Your task to perform on an android device: set an alarm Image 0: 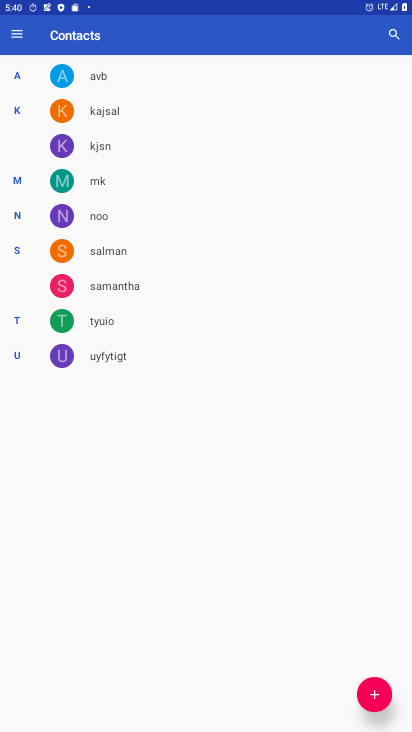
Step 0: press home button
Your task to perform on an android device: set an alarm Image 1: 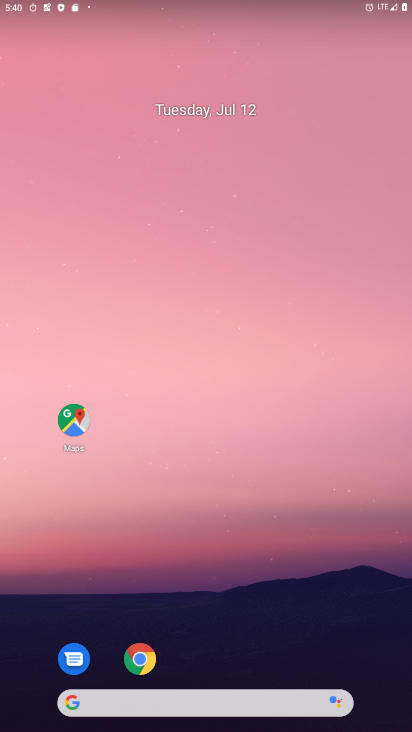
Step 1: drag from (228, 577) to (263, 186)
Your task to perform on an android device: set an alarm Image 2: 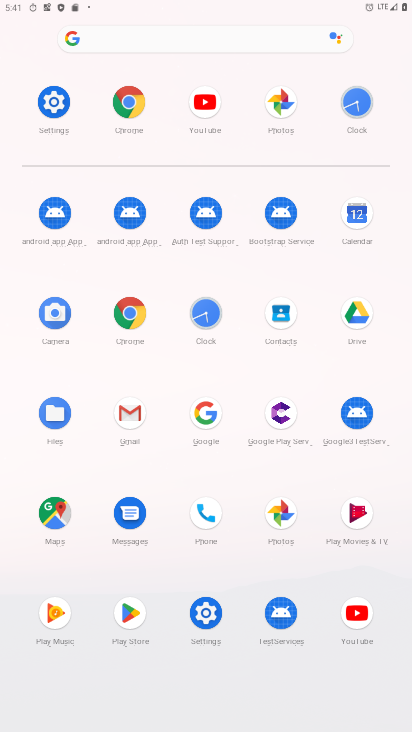
Step 2: click (214, 307)
Your task to perform on an android device: set an alarm Image 3: 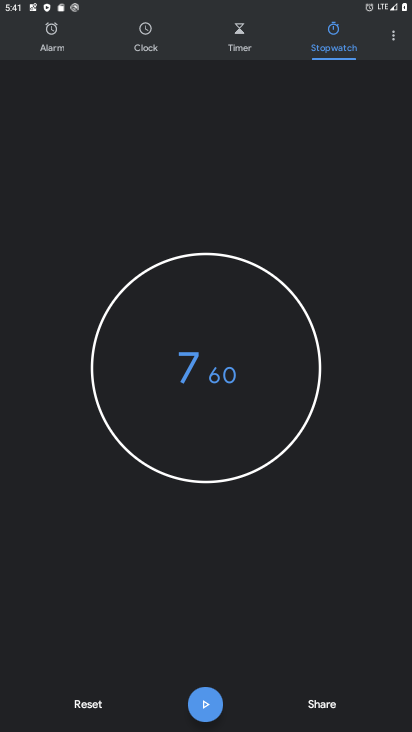
Step 3: click (46, 46)
Your task to perform on an android device: set an alarm Image 4: 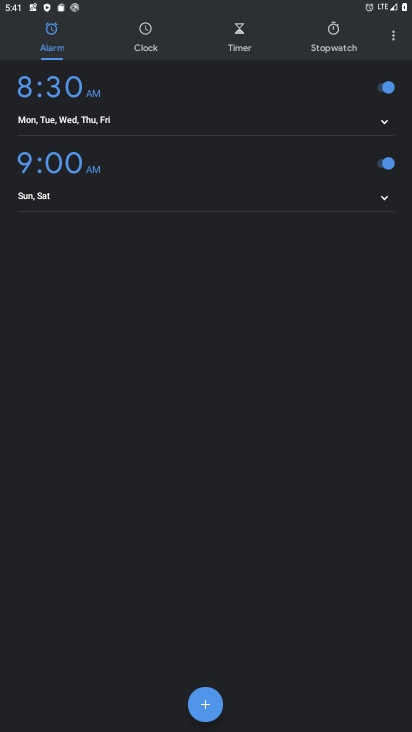
Step 4: click (207, 691)
Your task to perform on an android device: set an alarm Image 5: 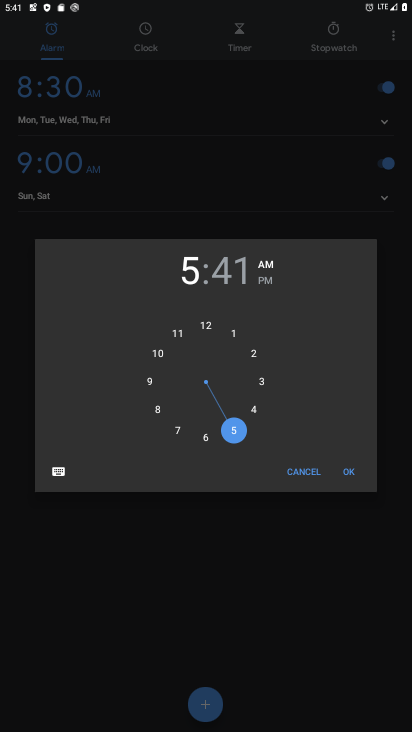
Step 5: click (254, 384)
Your task to perform on an android device: set an alarm Image 6: 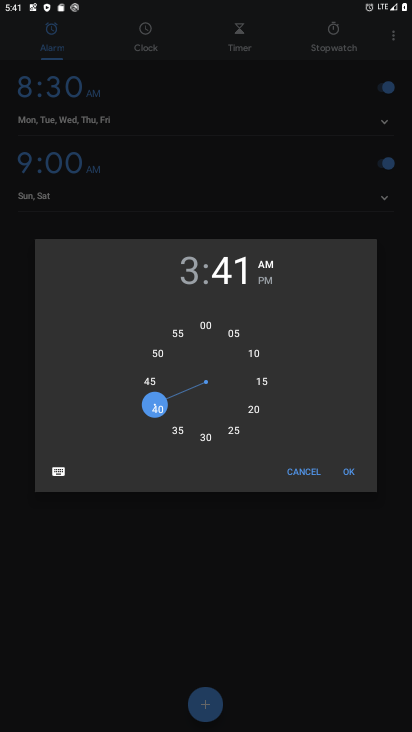
Step 6: click (257, 384)
Your task to perform on an android device: set an alarm Image 7: 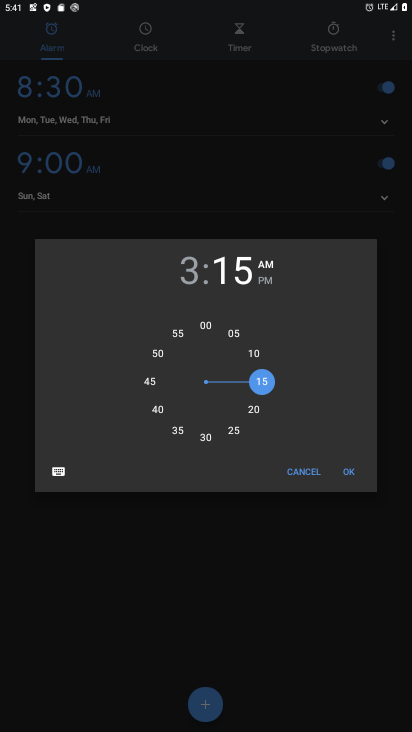
Step 7: click (345, 468)
Your task to perform on an android device: set an alarm Image 8: 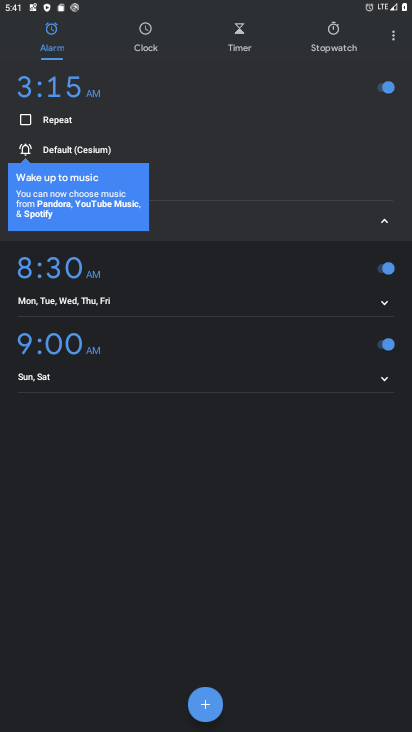
Step 8: task complete